Your task to perform on an android device: Open eBay Image 0: 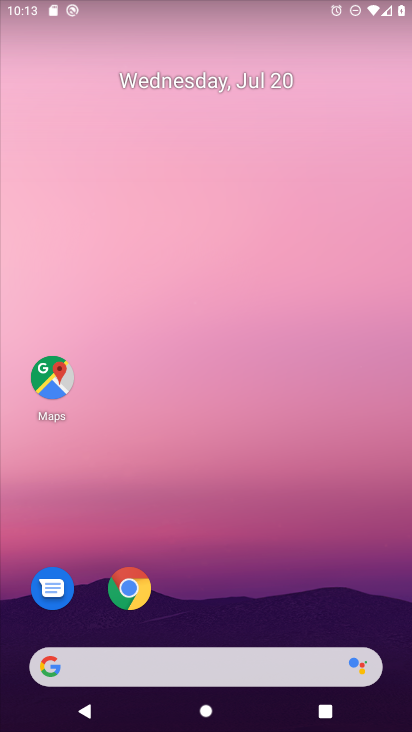
Step 0: click (135, 583)
Your task to perform on an android device: Open eBay Image 1: 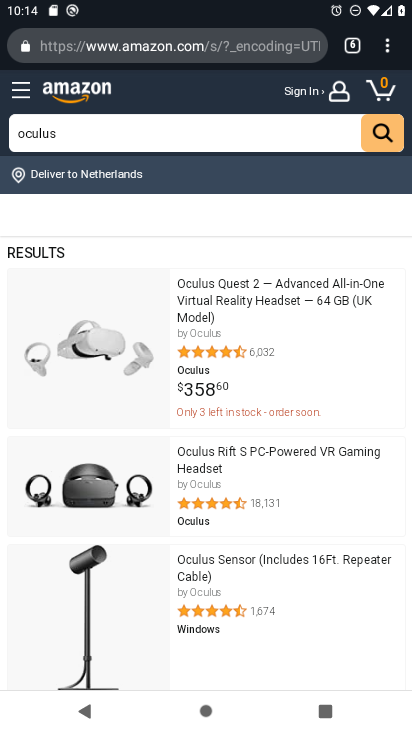
Step 1: click (344, 44)
Your task to perform on an android device: Open eBay Image 2: 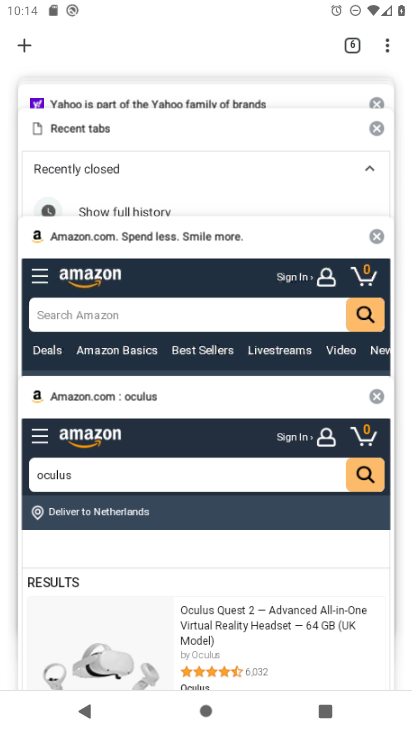
Step 2: drag from (196, 109) to (162, 418)
Your task to perform on an android device: Open eBay Image 3: 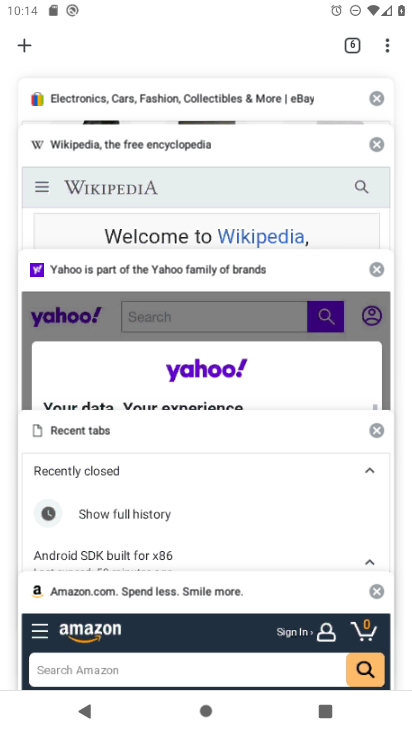
Step 3: click (153, 111)
Your task to perform on an android device: Open eBay Image 4: 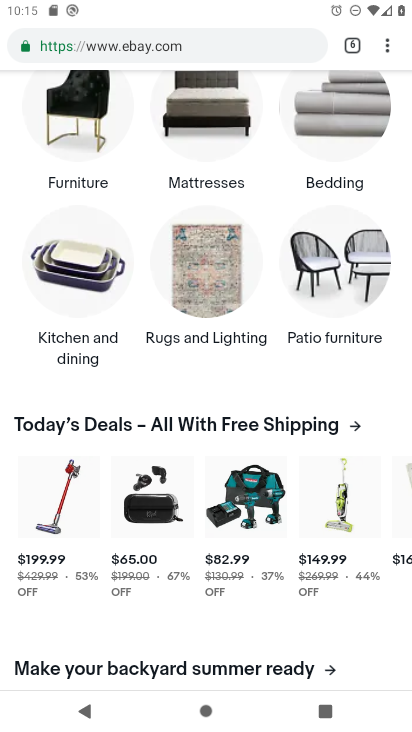
Step 4: task complete